Your task to perform on an android device: Search for vegetarian restaurants on Maps Image 0: 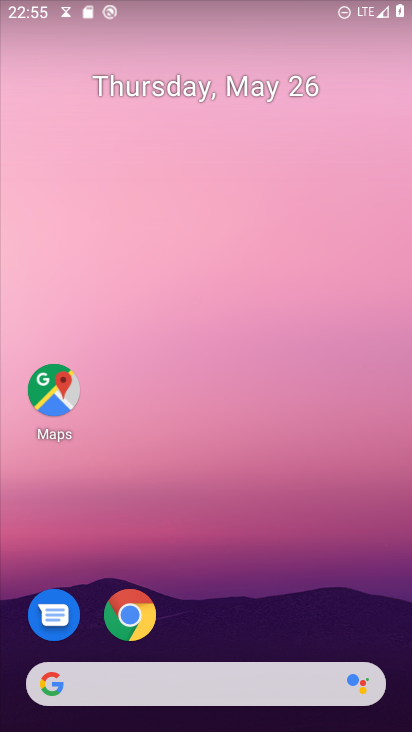
Step 0: drag from (274, 590) to (269, 121)
Your task to perform on an android device: Search for vegetarian restaurants on Maps Image 1: 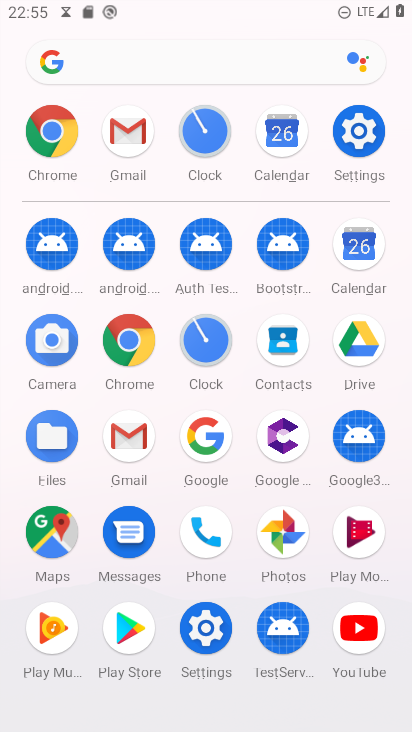
Step 1: click (53, 527)
Your task to perform on an android device: Search for vegetarian restaurants on Maps Image 2: 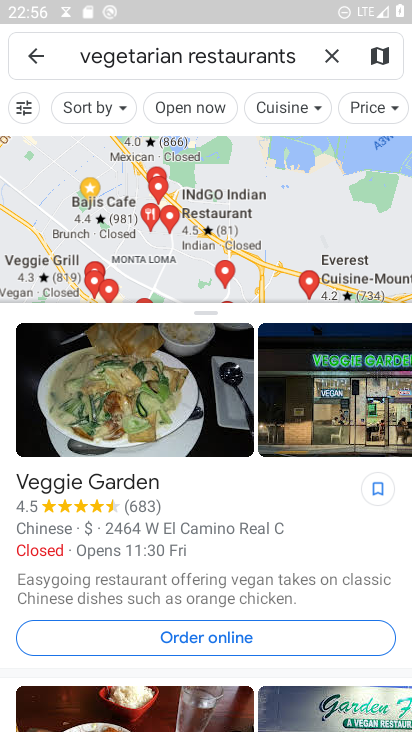
Step 2: task complete